Your task to perform on an android device: Open accessibility settings Image 0: 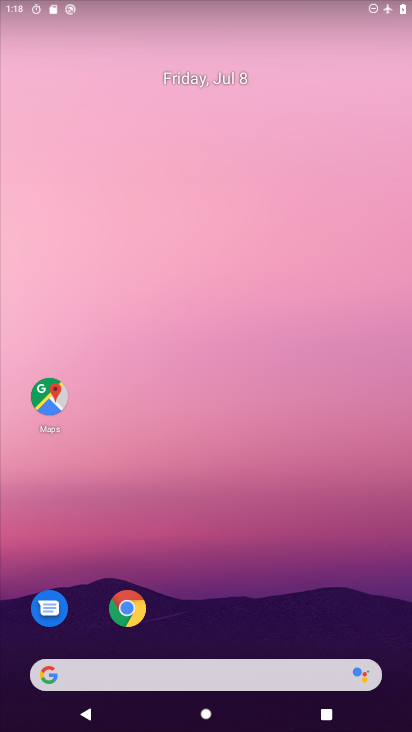
Step 0: drag from (245, 652) to (262, 268)
Your task to perform on an android device: Open accessibility settings Image 1: 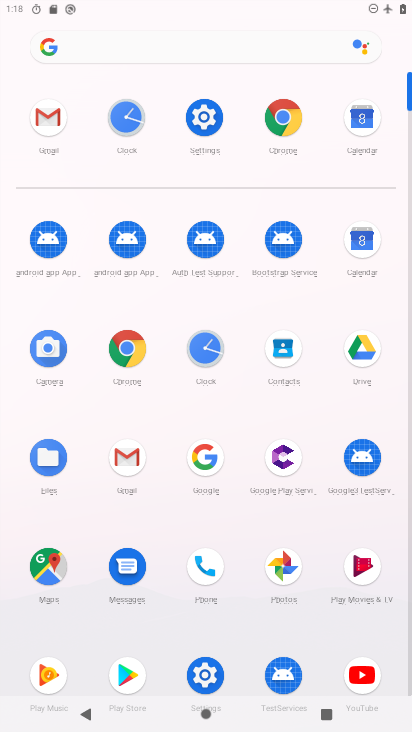
Step 1: click (215, 112)
Your task to perform on an android device: Open accessibility settings Image 2: 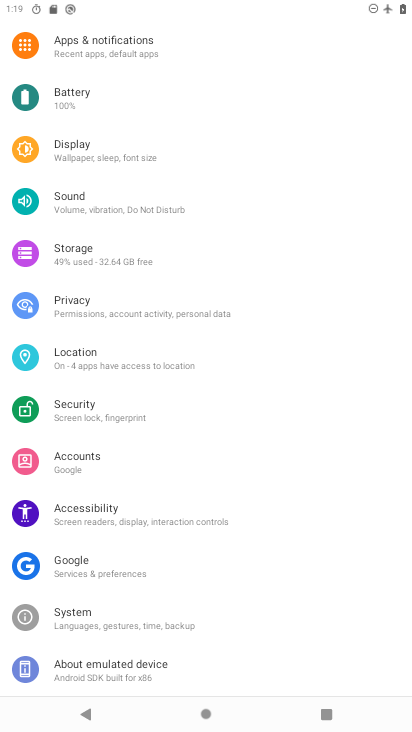
Step 2: click (89, 512)
Your task to perform on an android device: Open accessibility settings Image 3: 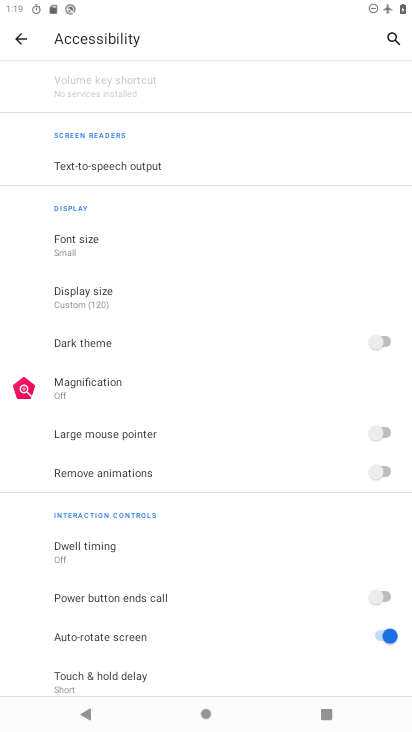
Step 3: task complete